Your task to perform on an android device: Go to Google maps Image 0: 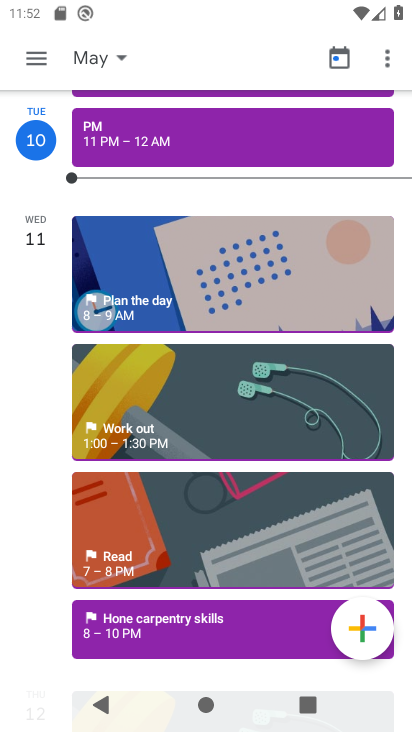
Step 0: press home button
Your task to perform on an android device: Go to Google maps Image 1: 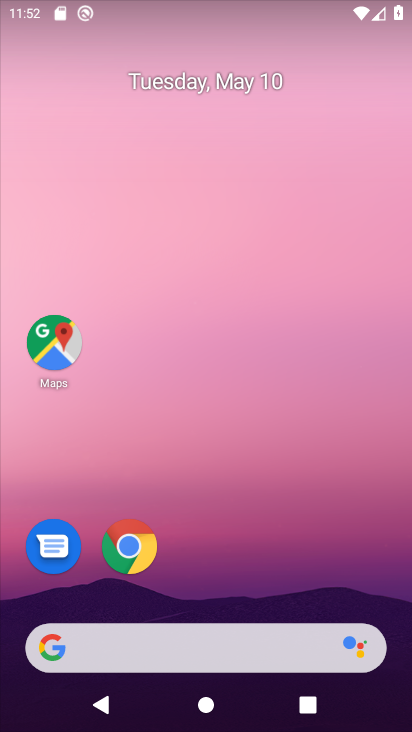
Step 1: click (58, 327)
Your task to perform on an android device: Go to Google maps Image 2: 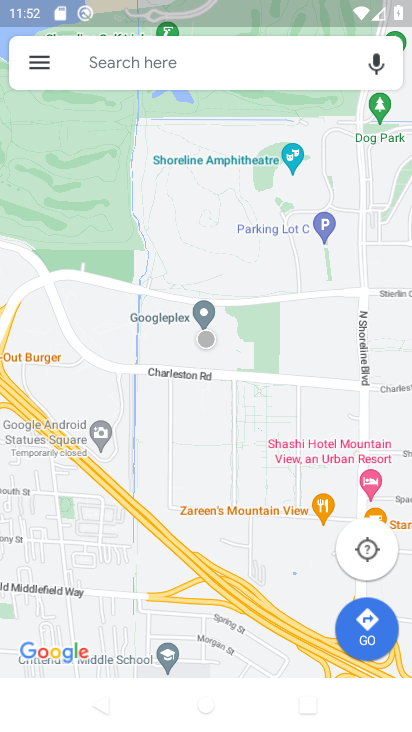
Step 2: task complete